Your task to perform on an android device: open app "Adobe Acrobat Reader: Edit PDF" (install if not already installed), go to login, and select forgot password Image 0: 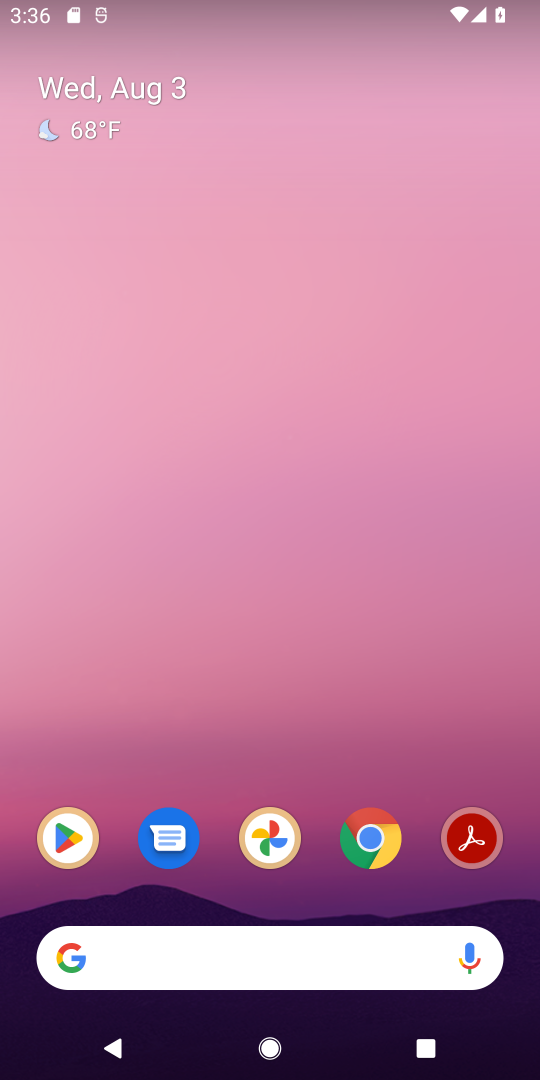
Step 0: drag from (249, 797) to (299, 128)
Your task to perform on an android device: open app "Adobe Acrobat Reader: Edit PDF" (install if not already installed), go to login, and select forgot password Image 1: 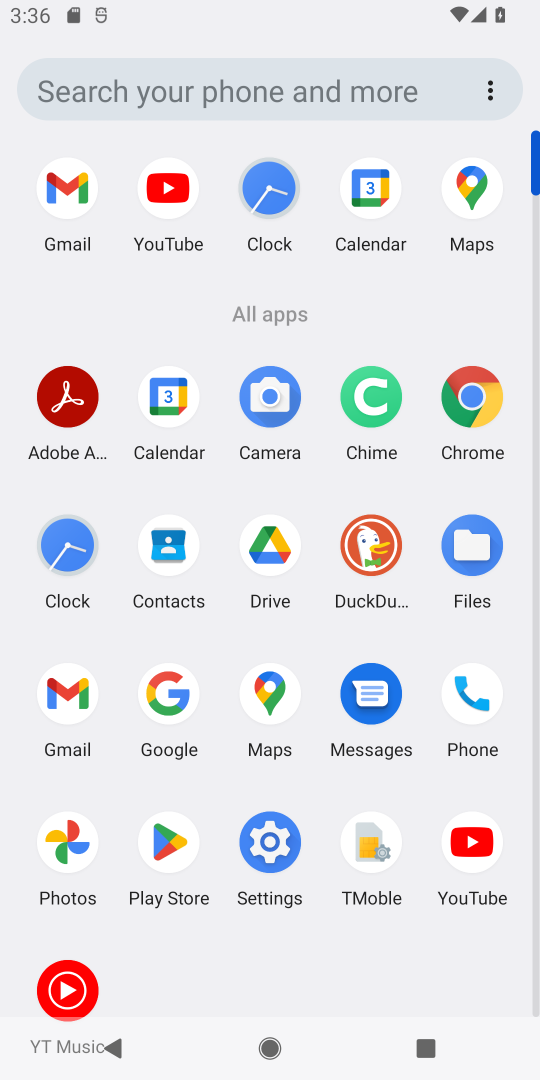
Step 1: click (69, 408)
Your task to perform on an android device: open app "Adobe Acrobat Reader: Edit PDF" (install if not already installed), go to login, and select forgot password Image 2: 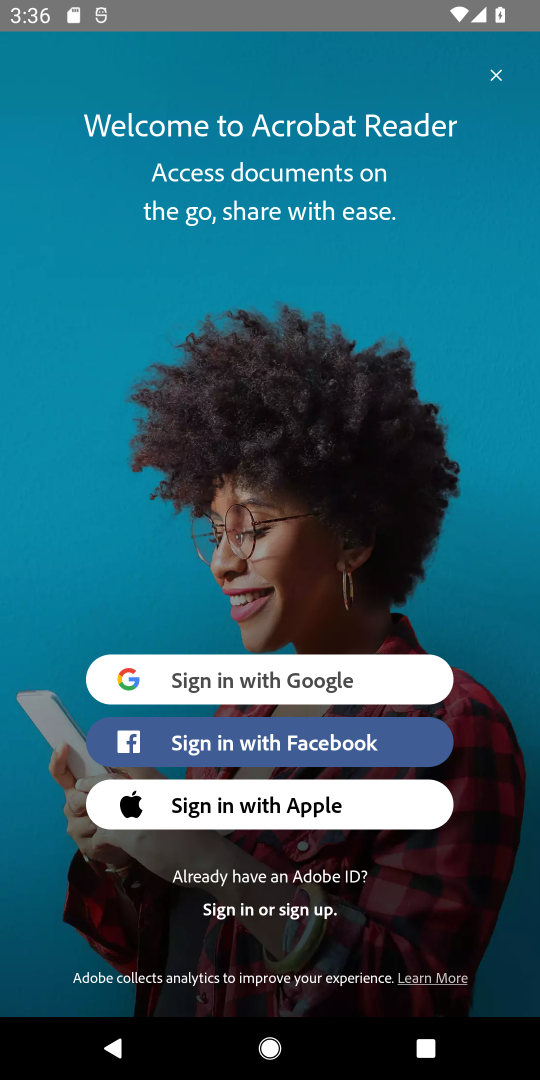
Step 2: task complete